Your task to perform on an android device: Turn on the flashlight Image 0: 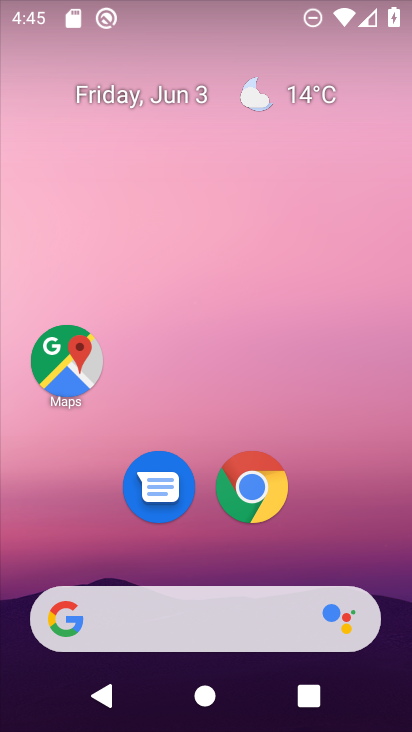
Step 0: drag from (247, 257) to (288, 68)
Your task to perform on an android device: Turn on the flashlight Image 1: 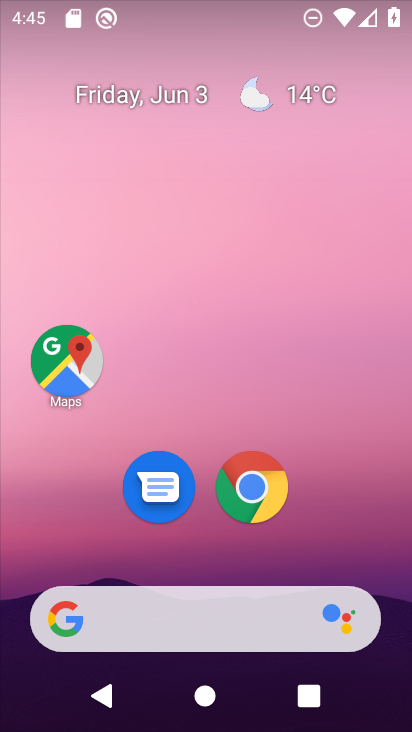
Step 1: drag from (223, 570) to (283, 18)
Your task to perform on an android device: Turn on the flashlight Image 2: 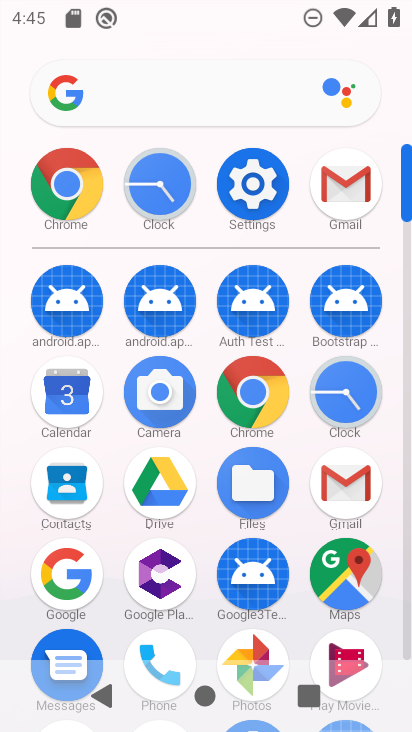
Step 2: click (254, 188)
Your task to perform on an android device: Turn on the flashlight Image 3: 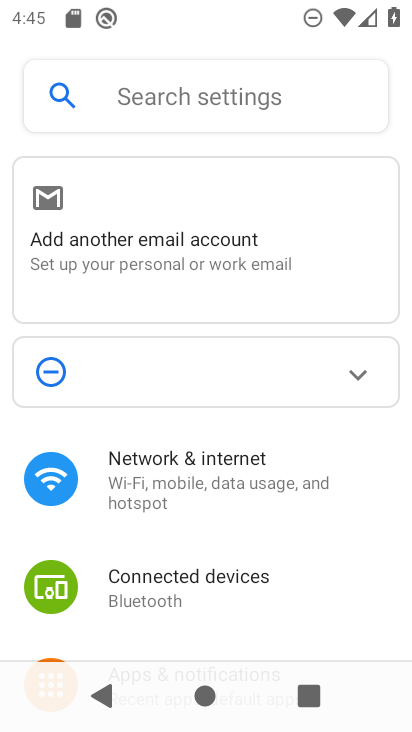
Step 3: click (182, 103)
Your task to perform on an android device: Turn on the flashlight Image 4: 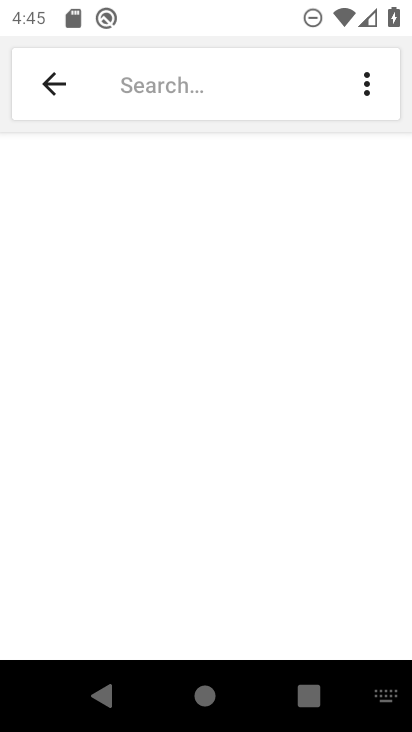
Step 4: type "flashlight"
Your task to perform on an android device: Turn on the flashlight Image 5: 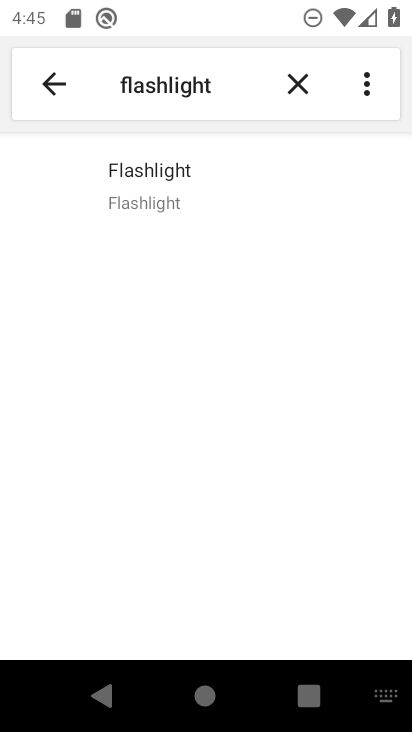
Step 5: click (171, 178)
Your task to perform on an android device: Turn on the flashlight Image 6: 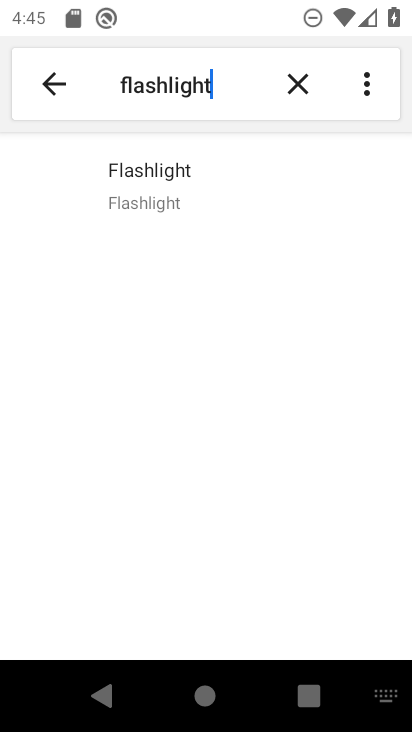
Step 6: task complete